Your task to perform on an android device: check storage Image 0: 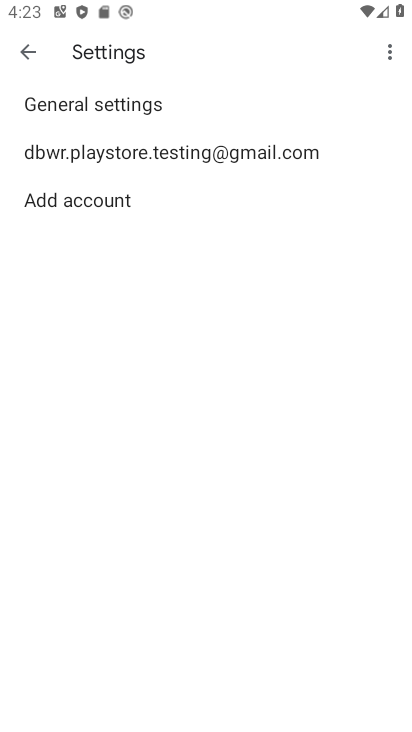
Step 0: press home button
Your task to perform on an android device: check storage Image 1: 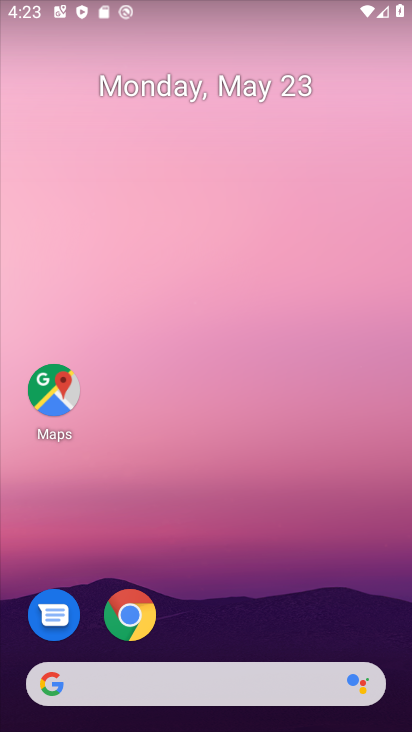
Step 1: drag from (278, 616) to (317, 121)
Your task to perform on an android device: check storage Image 2: 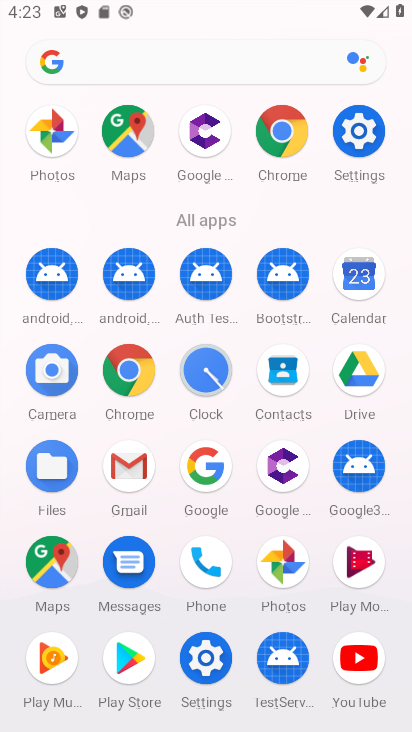
Step 2: click (360, 136)
Your task to perform on an android device: check storage Image 3: 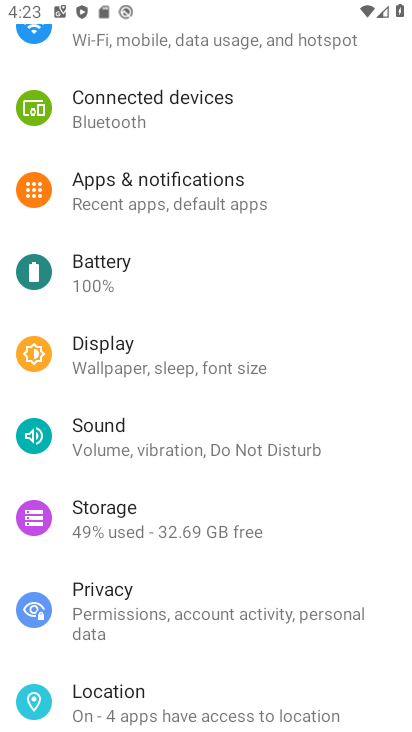
Step 3: click (104, 528)
Your task to perform on an android device: check storage Image 4: 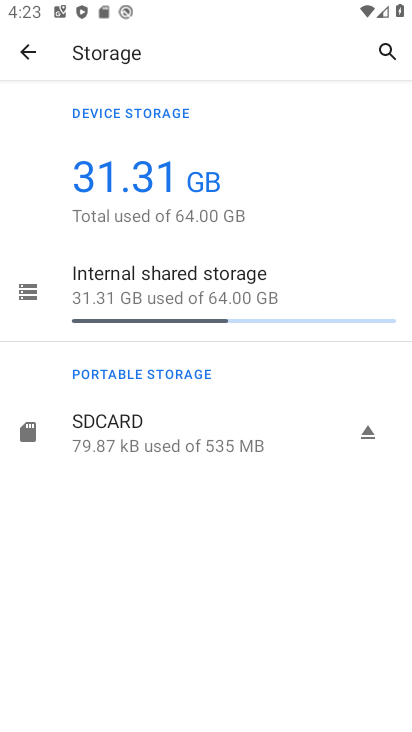
Step 4: task complete